Your task to perform on an android device: show emergency info Image 0: 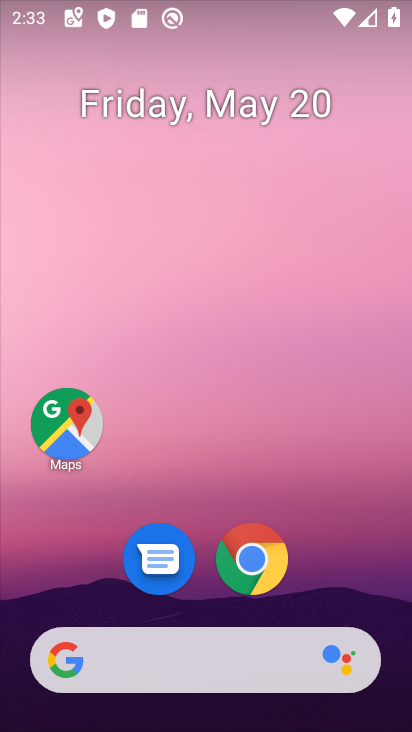
Step 0: drag from (255, 443) to (250, 0)
Your task to perform on an android device: show emergency info Image 1: 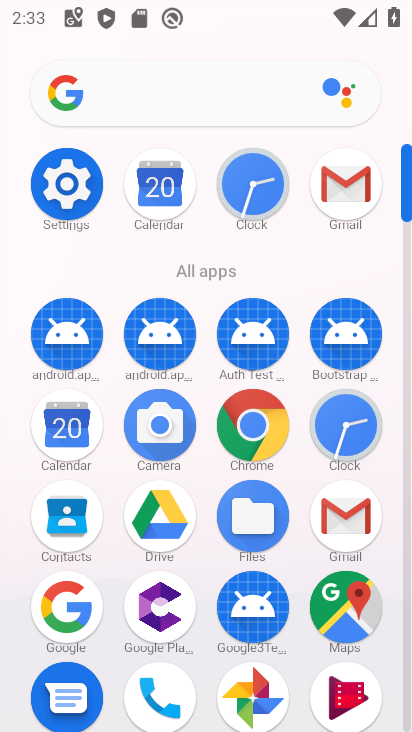
Step 1: click (72, 181)
Your task to perform on an android device: show emergency info Image 2: 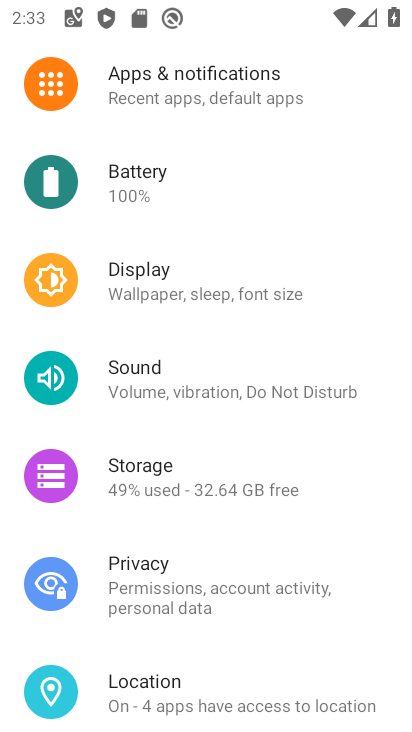
Step 2: drag from (255, 551) to (285, 96)
Your task to perform on an android device: show emergency info Image 3: 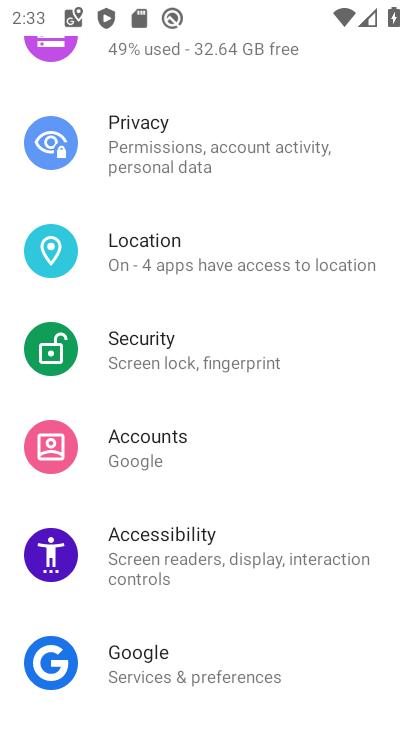
Step 3: drag from (214, 330) to (241, 65)
Your task to perform on an android device: show emergency info Image 4: 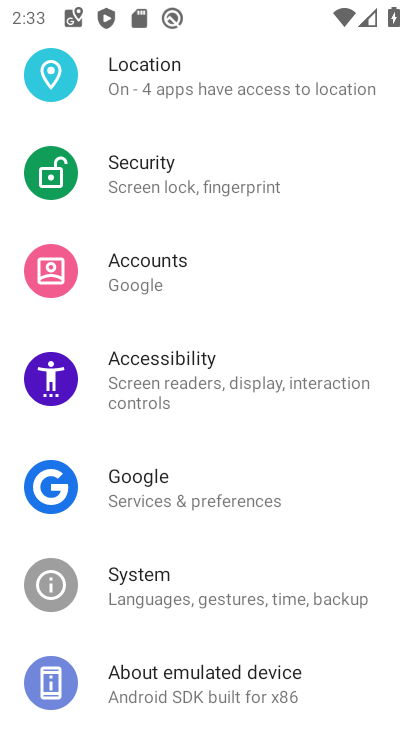
Step 4: click (169, 671)
Your task to perform on an android device: show emergency info Image 5: 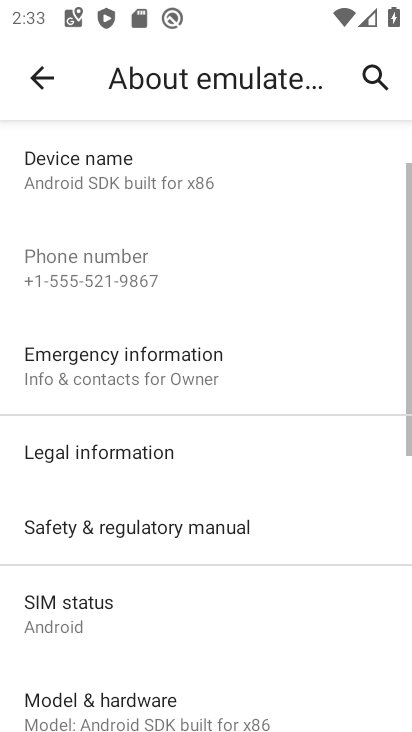
Step 5: click (187, 364)
Your task to perform on an android device: show emergency info Image 6: 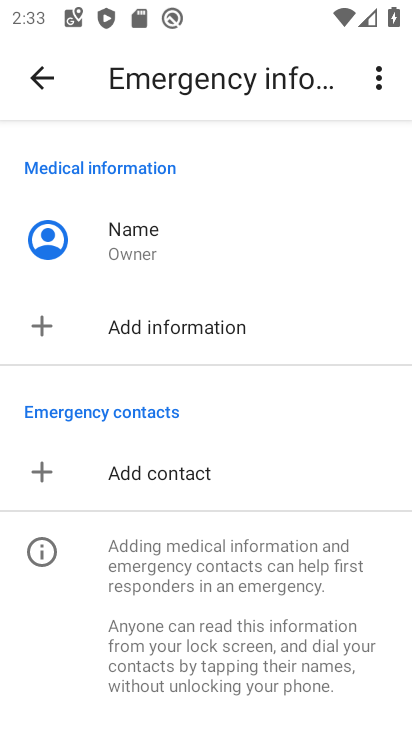
Step 6: task complete